Your task to perform on an android device: Go to Reddit.com Image 0: 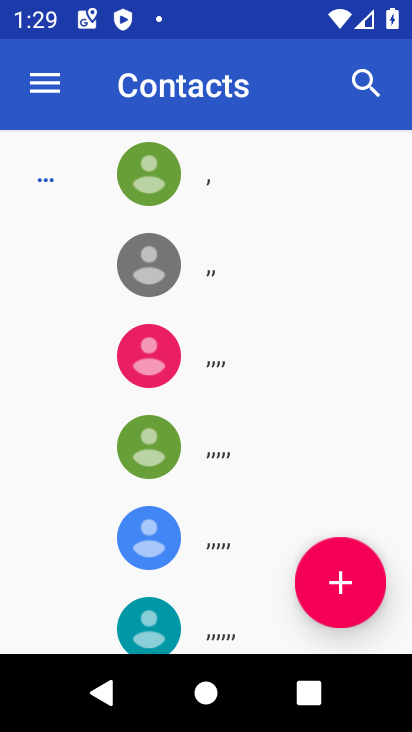
Step 0: press home button
Your task to perform on an android device: Go to Reddit.com Image 1: 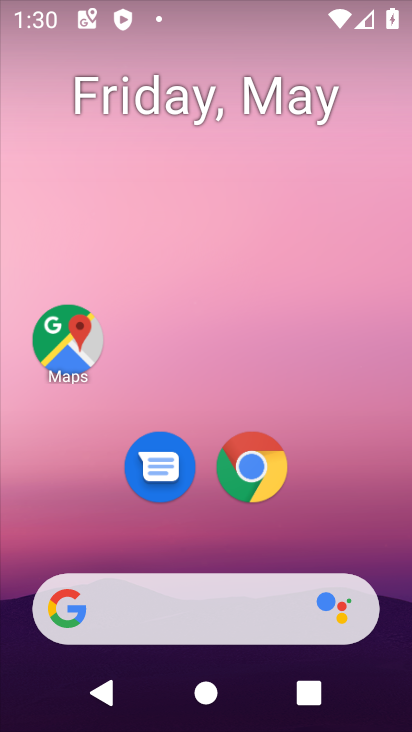
Step 1: click (206, 615)
Your task to perform on an android device: Go to Reddit.com Image 2: 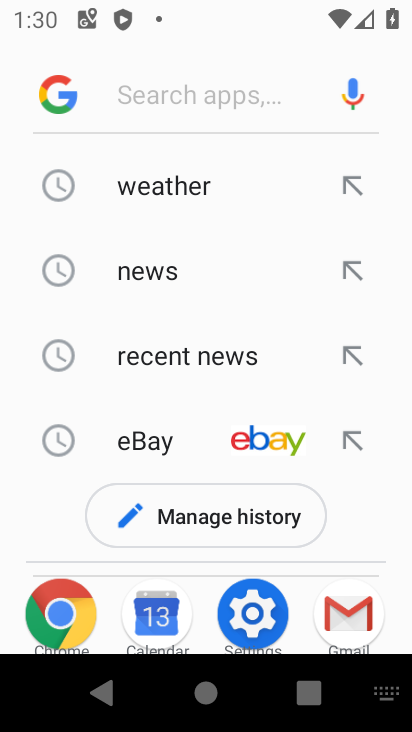
Step 2: type "Reddit.com"
Your task to perform on an android device: Go to Reddit.com Image 3: 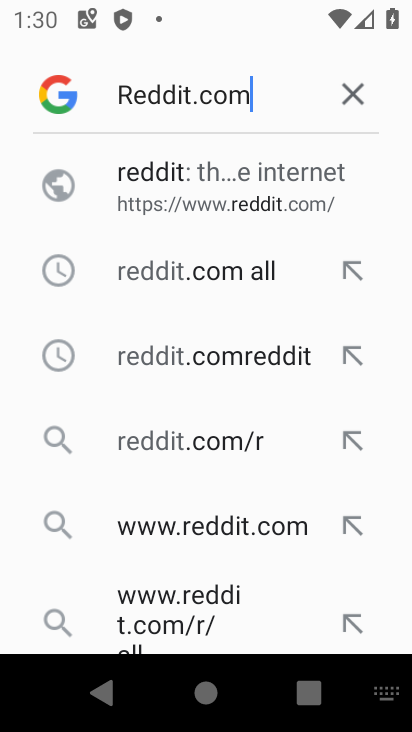
Step 3: type ""
Your task to perform on an android device: Go to Reddit.com Image 4: 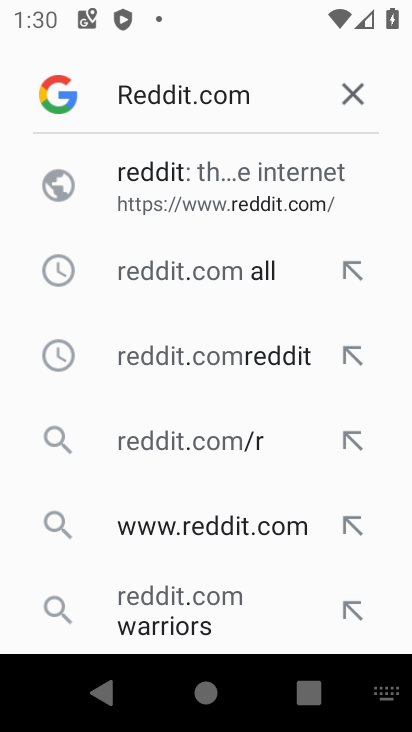
Step 4: click (155, 184)
Your task to perform on an android device: Go to Reddit.com Image 5: 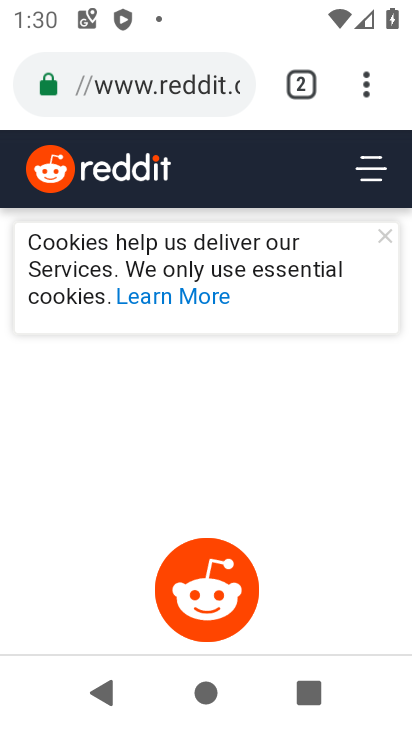
Step 5: task complete